Your task to perform on an android device: change alarm snooze length Image 0: 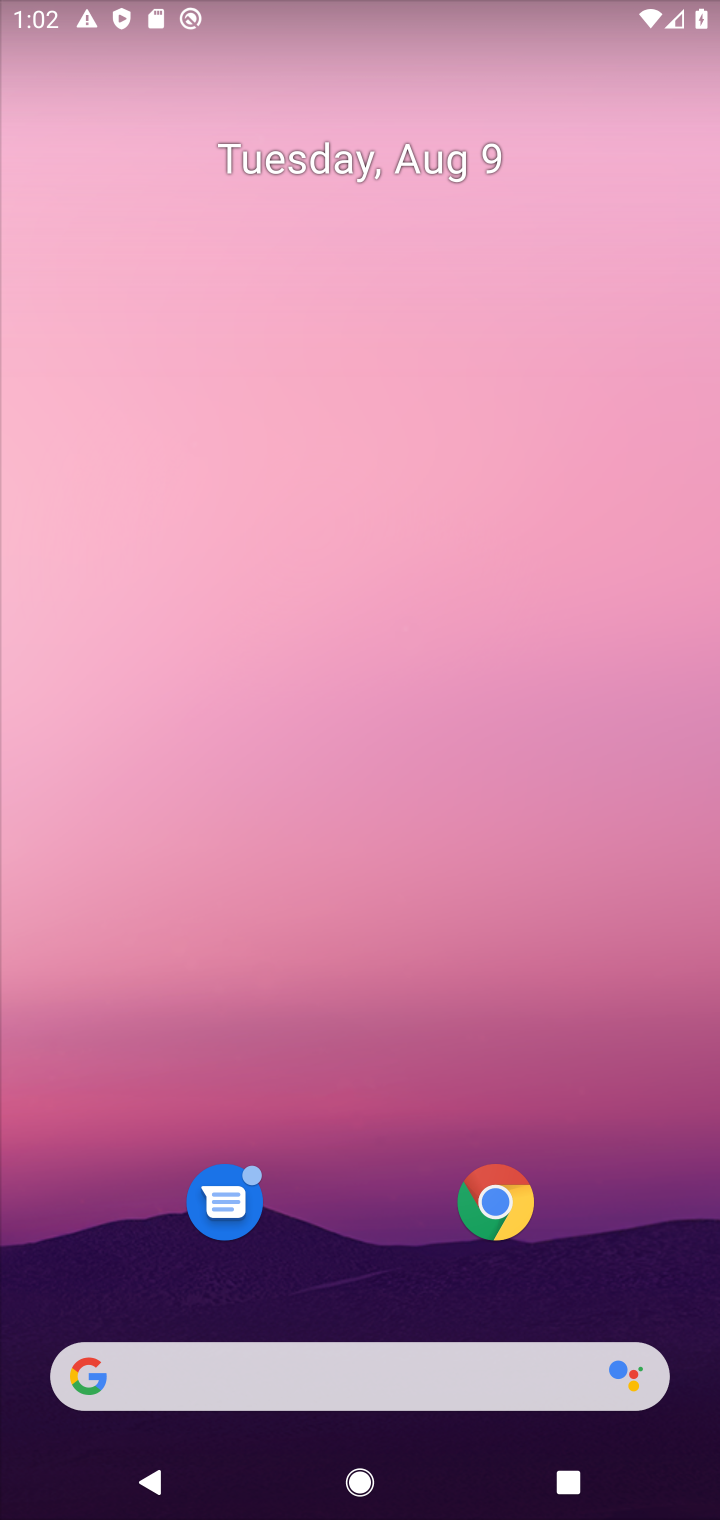
Step 0: drag from (382, 1175) to (458, 261)
Your task to perform on an android device: change alarm snooze length Image 1: 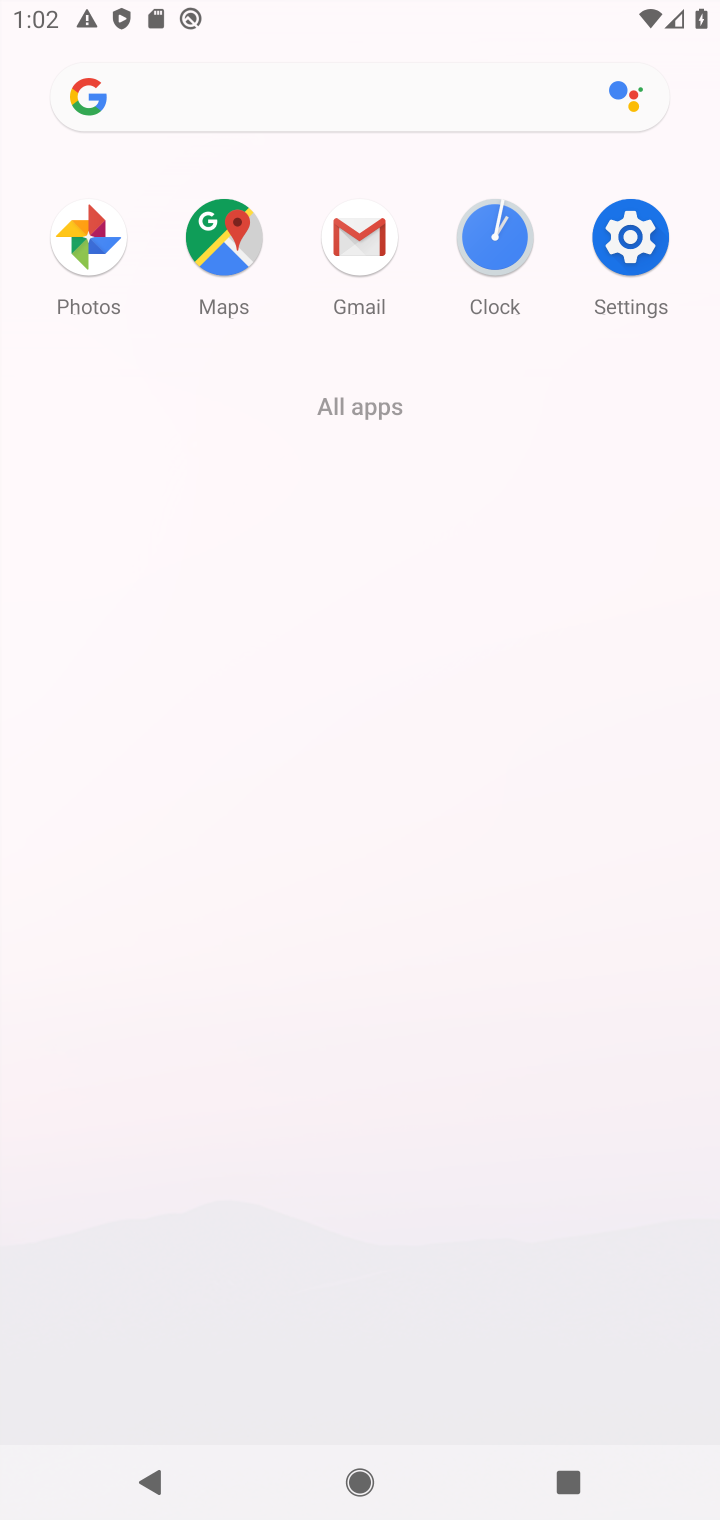
Step 1: click (489, 218)
Your task to perform on an android device: change alarm snooze length Image 2: 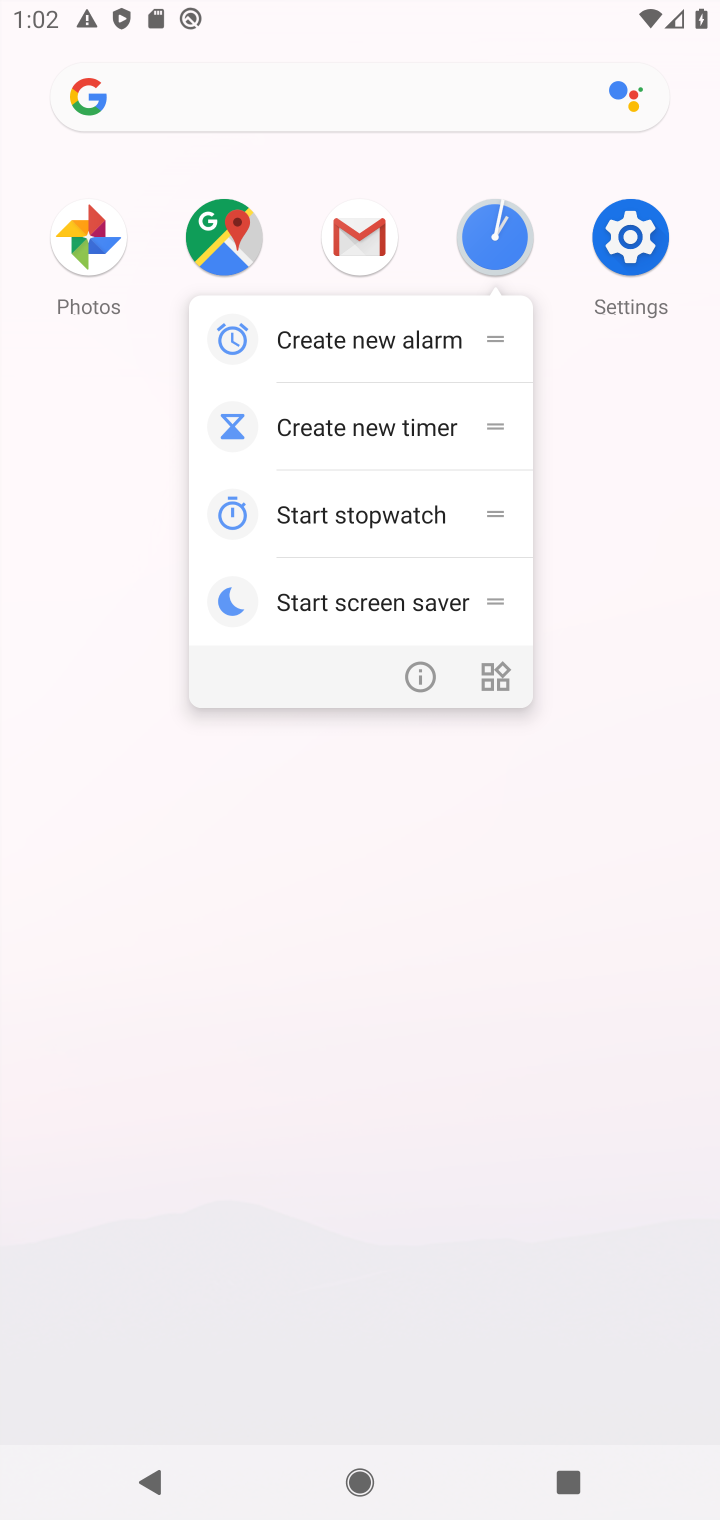
Step 2: click (502, 223)
Your task to perform on an android device: change alarm snooze length Image 3: 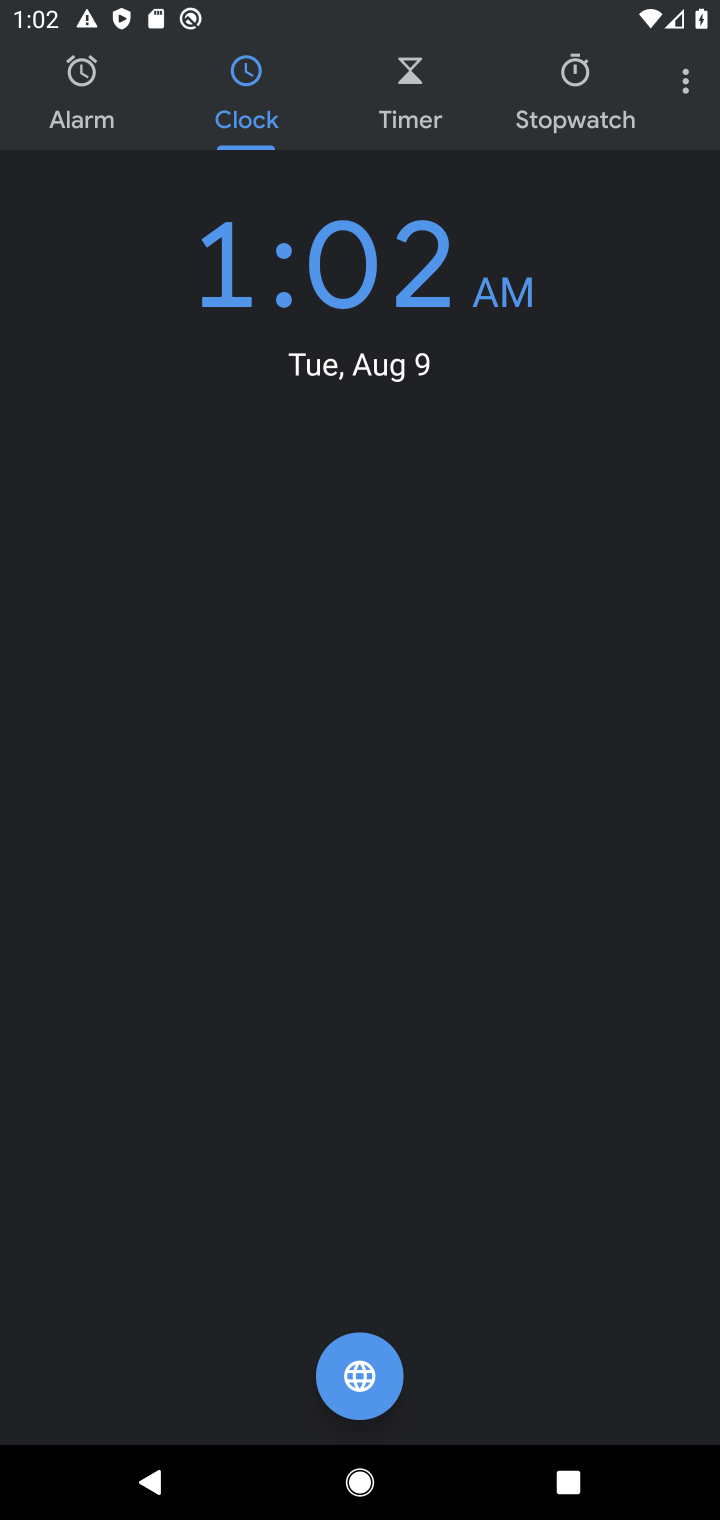
Step 3: click (678, 85)
Your task to perform on an android device: change alarm snooze length Image 4: 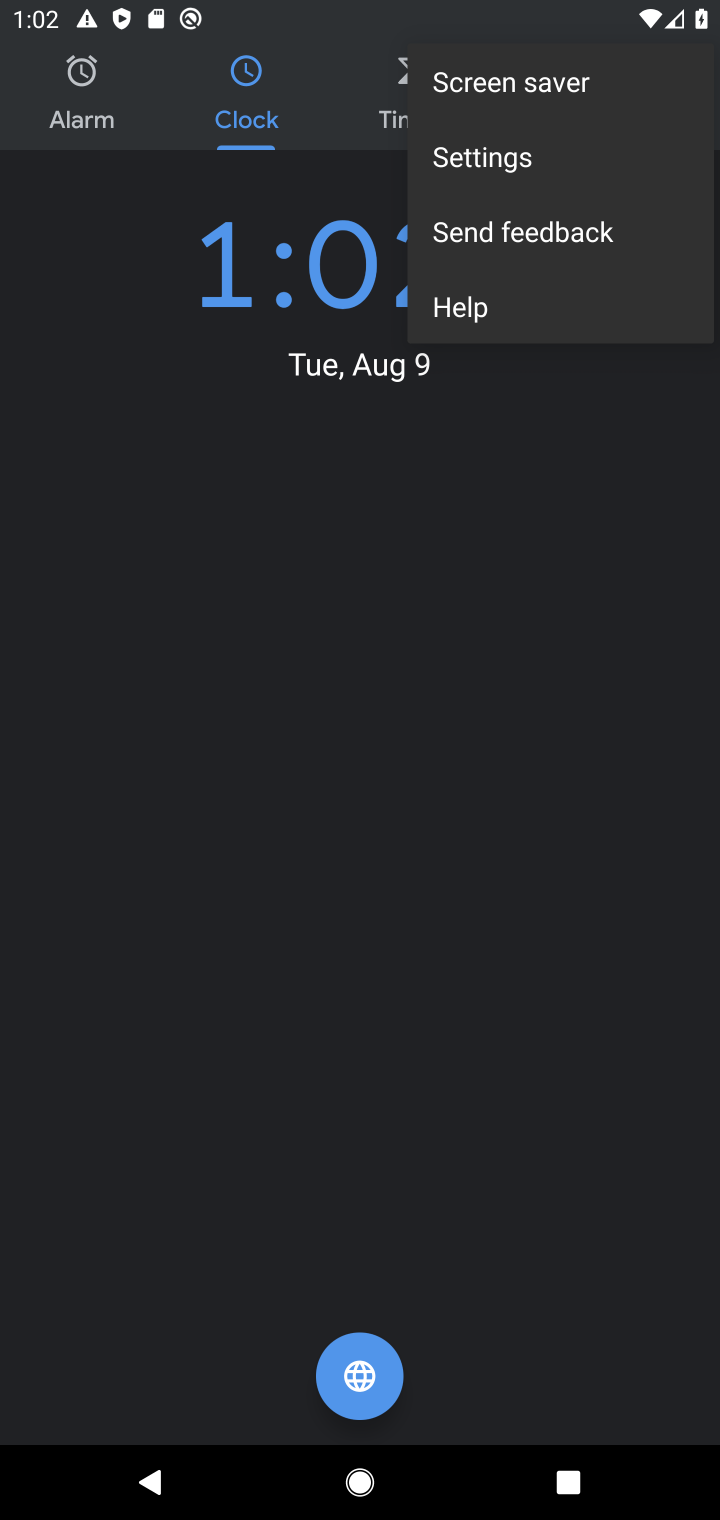
Step 4: click (536, 167)
Your task to perform on an android device: change alarm snooze length Image 5: 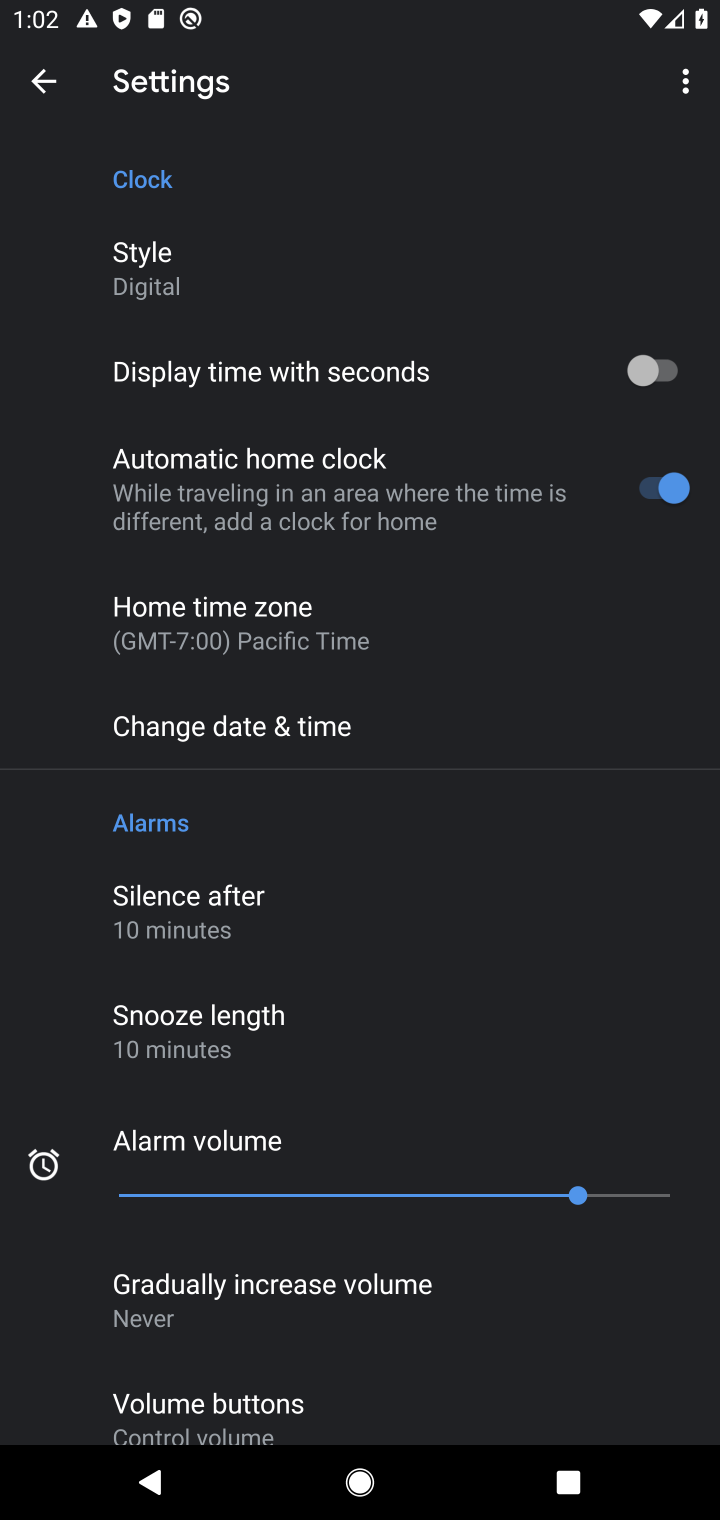
Step 5: click (320, 1030)
Your task to perform on an android device: change alarm snooze length Image 6: 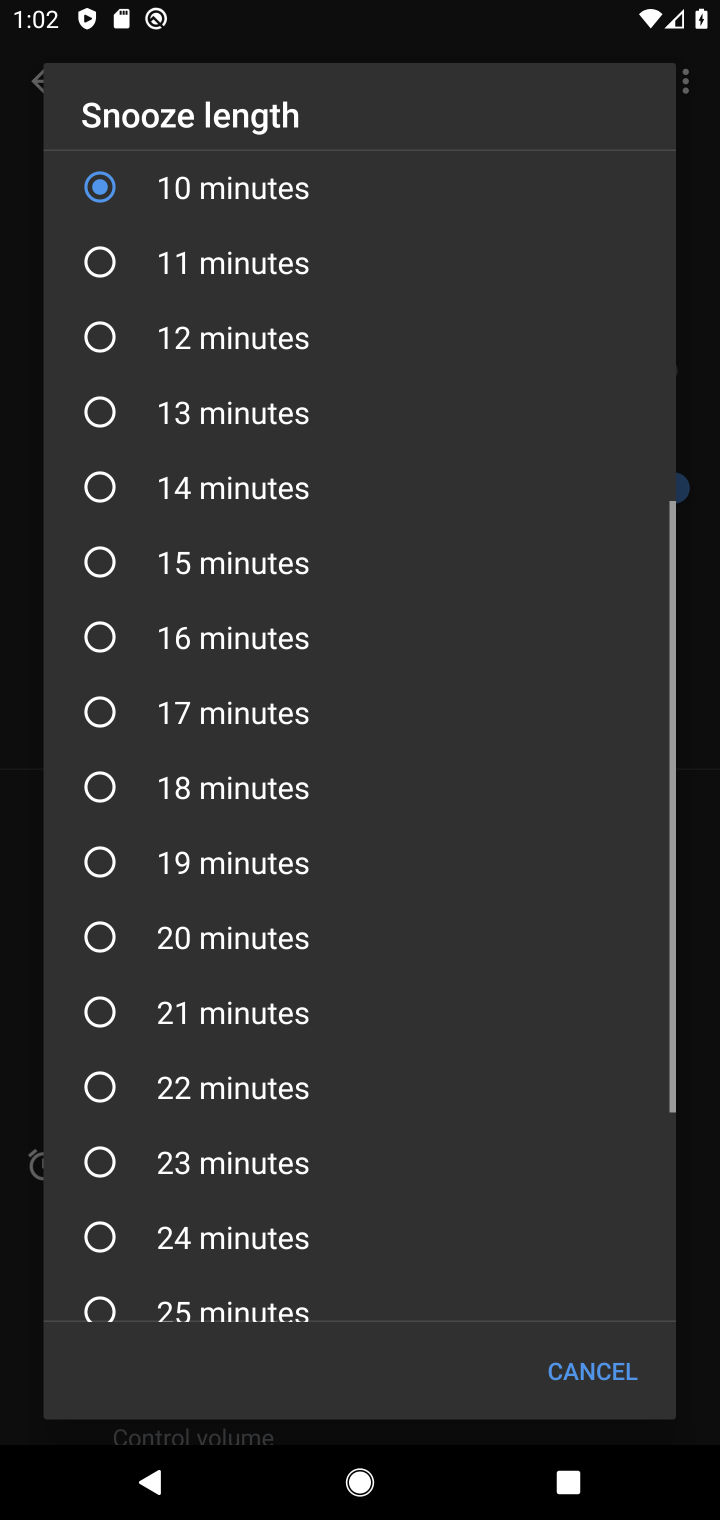
Step 6: drag from (176, 318) to (161, 1022)
Your task to perform on an android device: change alarm snooze length Image 7: 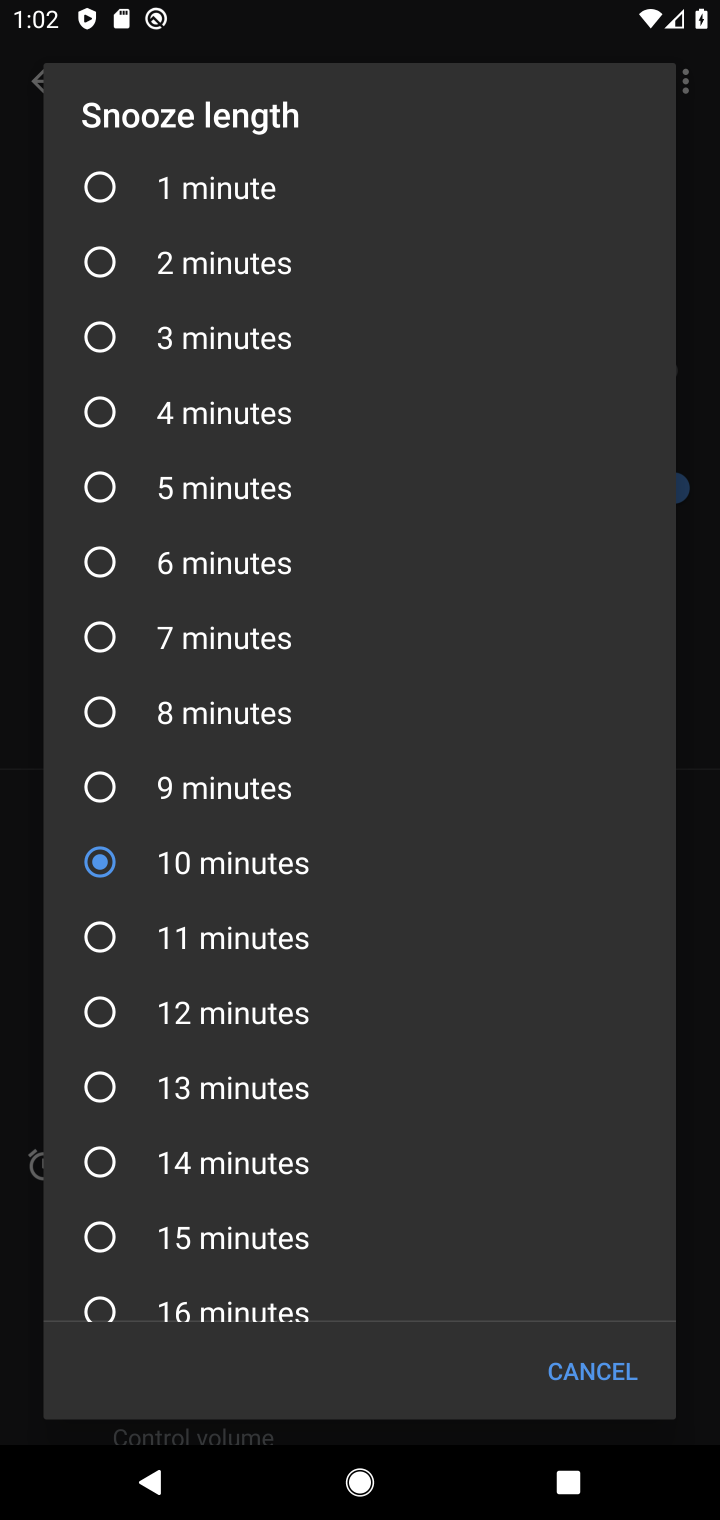
Step 7: click (103, 488)
Your task to perform on an android device: change alarm snooze length Image 8: 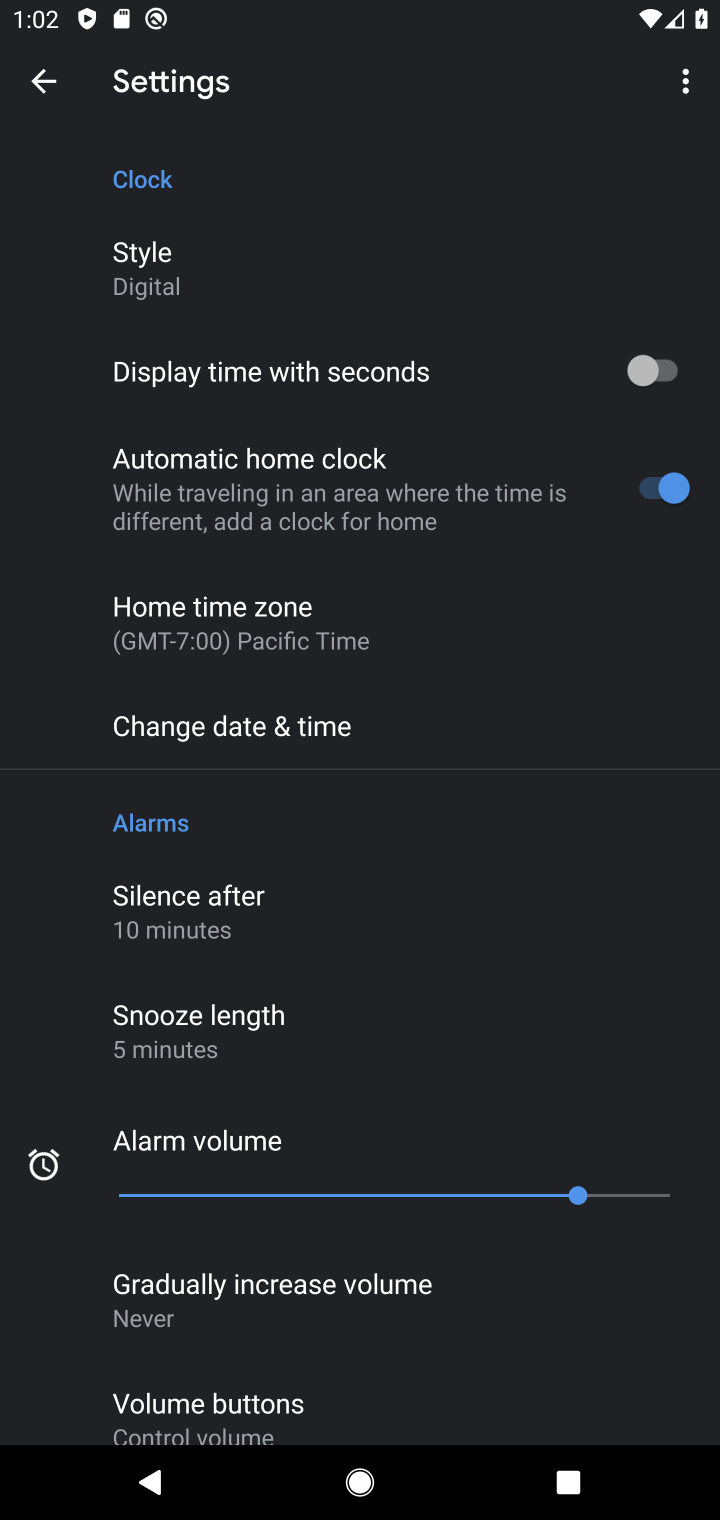
Step 8: task complete